Your task to perform on an android device: change the clock display to digital Image 0: 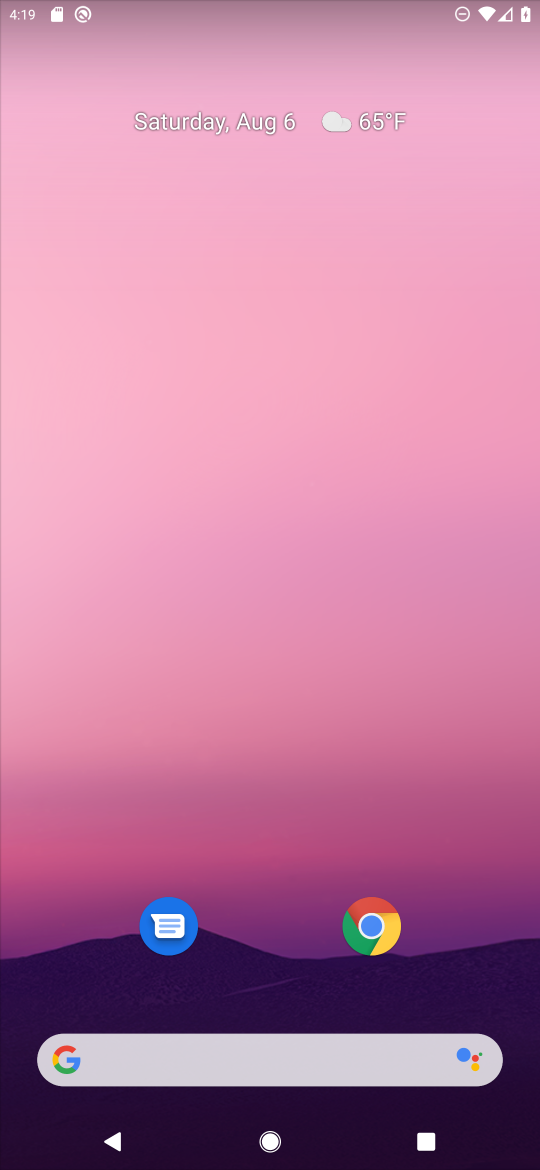
Step 0: drag from (288, 909) to (255, 344)
Your task to perform on an android device: change the clock display to digital Image 1: 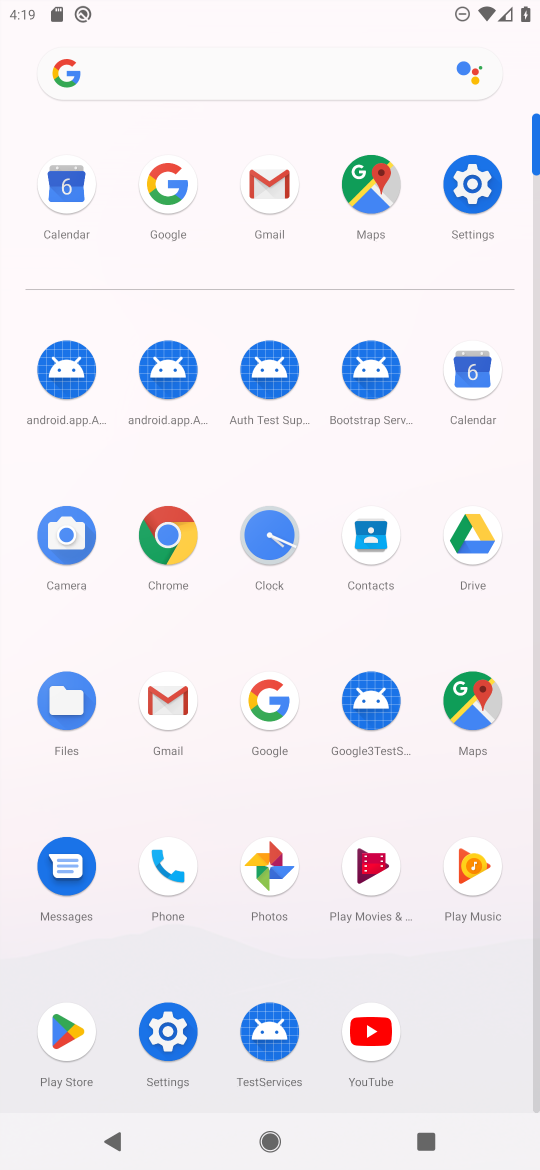
Step 1: click (271, 519)
Your task to perform on an android device: change the clock display to digital Image 2: 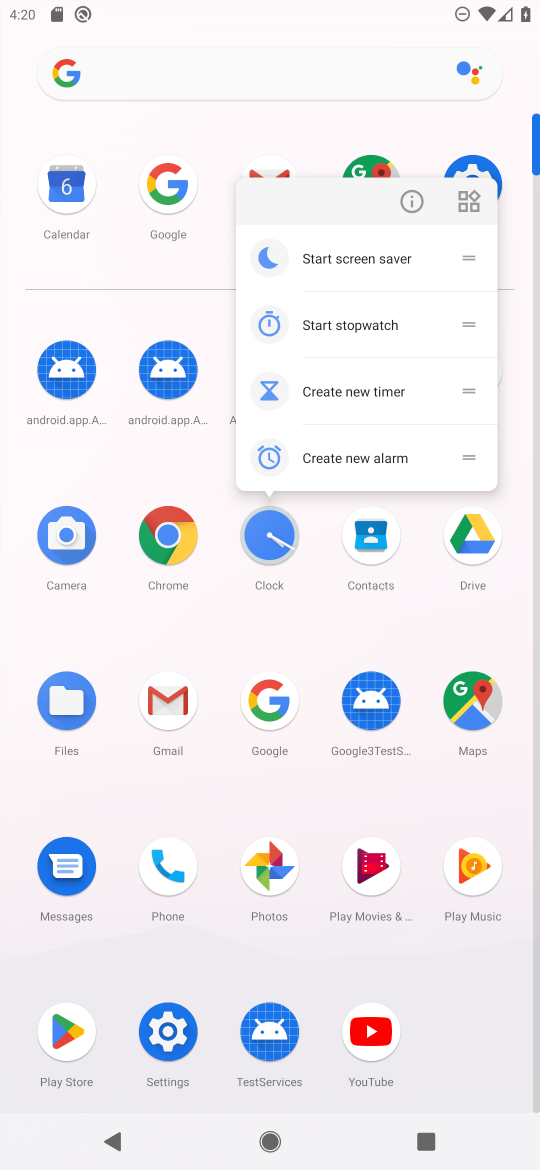
Step 2: click (292, 545)
Your task to perform on an android device: change the clock display to digital Image 3: 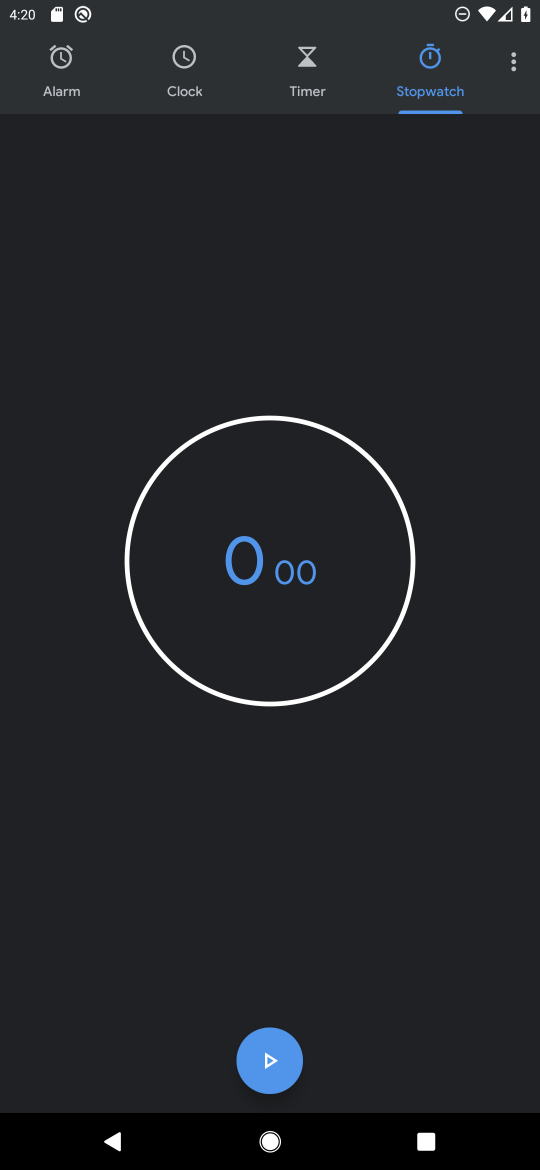
Step 3: click (512, 69)
Your task to perform on an android device: change the clock display to digital Image 4: 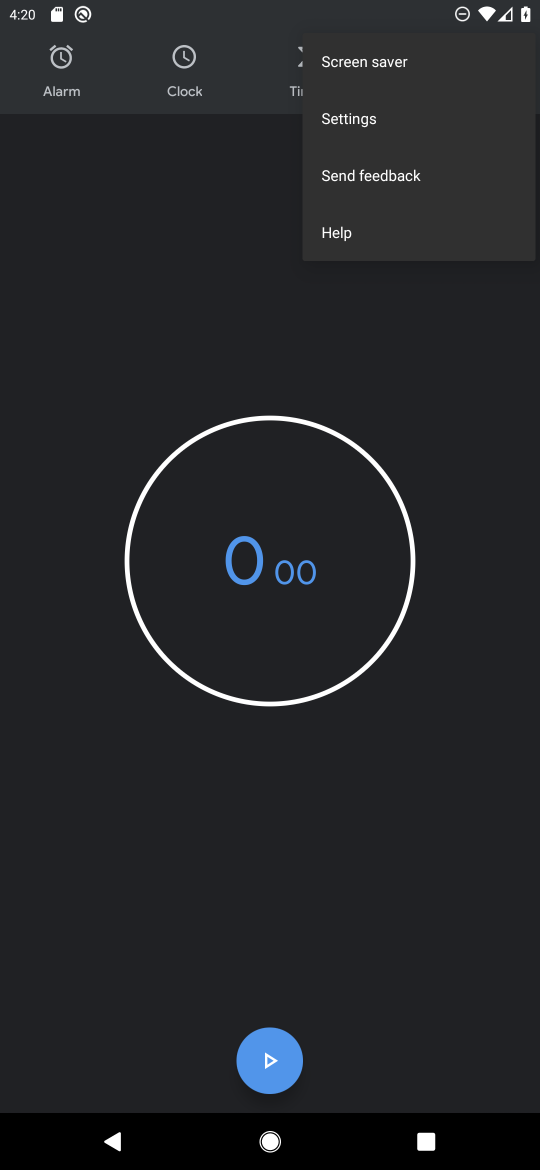
Step 4: click (341, 136)
Your task to perform on an android device: change the clock display to digital Image 5: 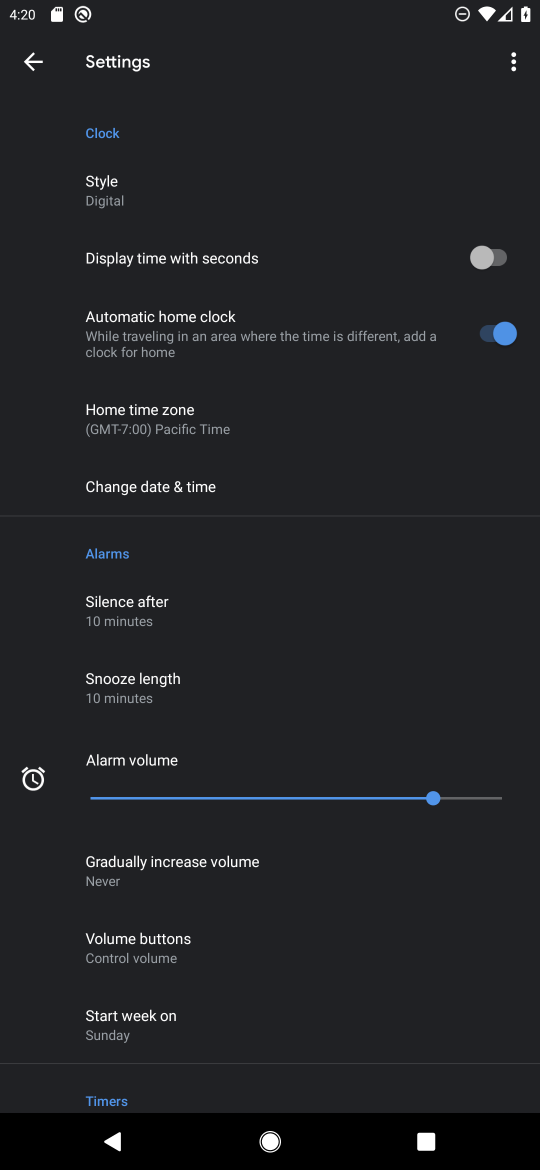
Step 5: click (152, 179)
Your task to perform on an android device: change the clock display to digital Image 6: 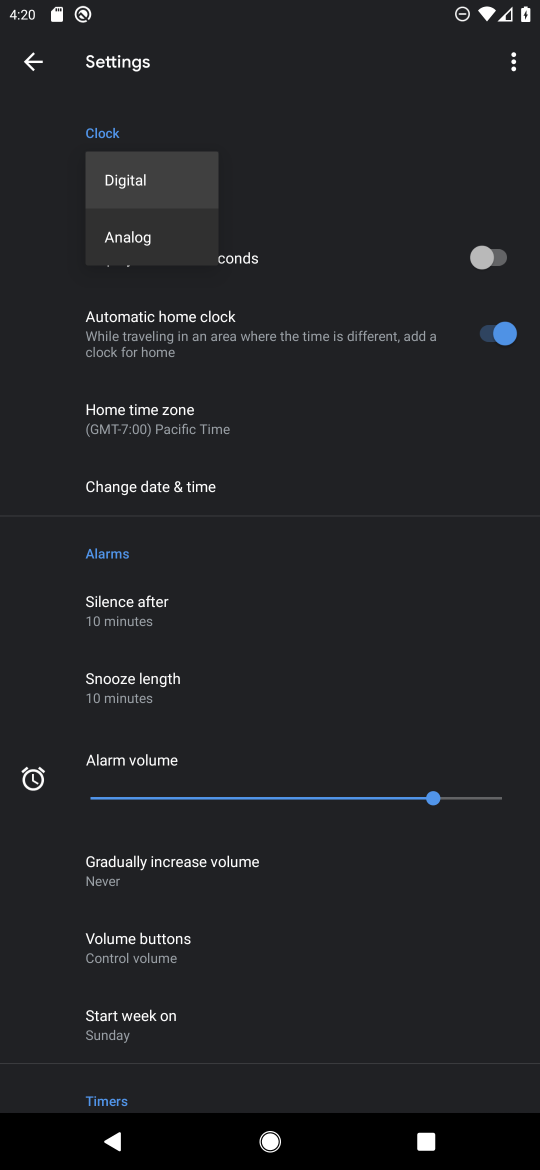
Step 6: task complete